Your task to perform on an android device: toggle translation in the chrome app Image 0: 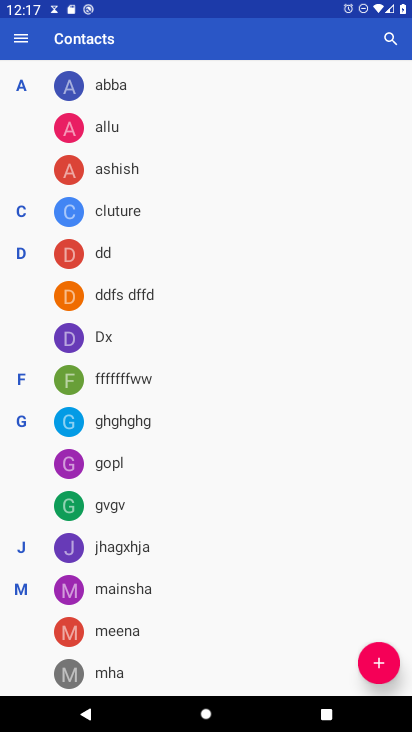
Step 0: press home button
Your task to perform on an android device: toggle translation in the chrome app Image 1: 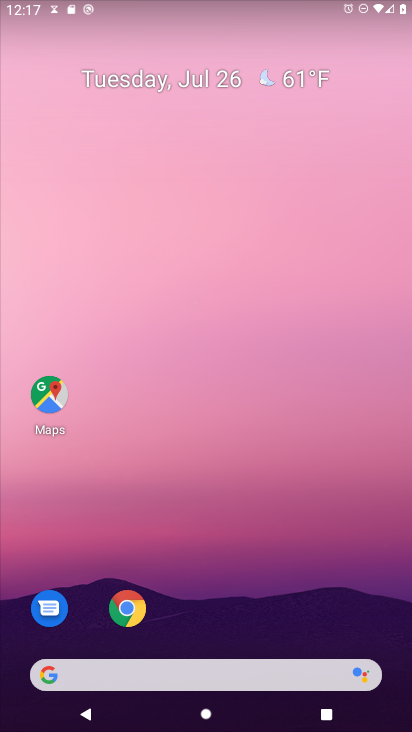
Step 1: click (127, 606)
Your task to perform on an android device: toggle translation in the chrome app Image 2: 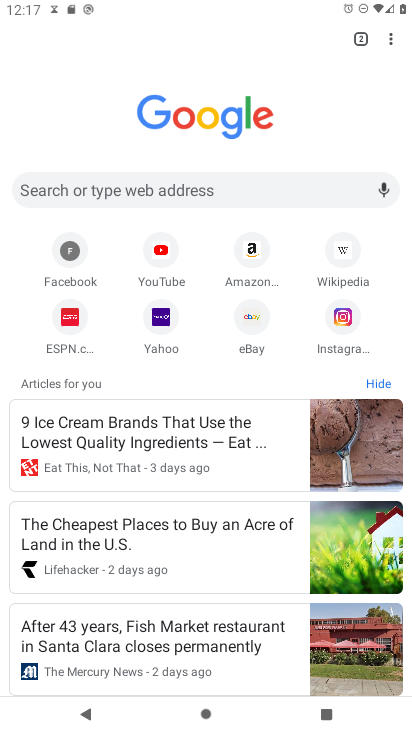
Step 2: click (390, 37)
Your task to perform on an android device: toggle translation in the chrome app Image 3: 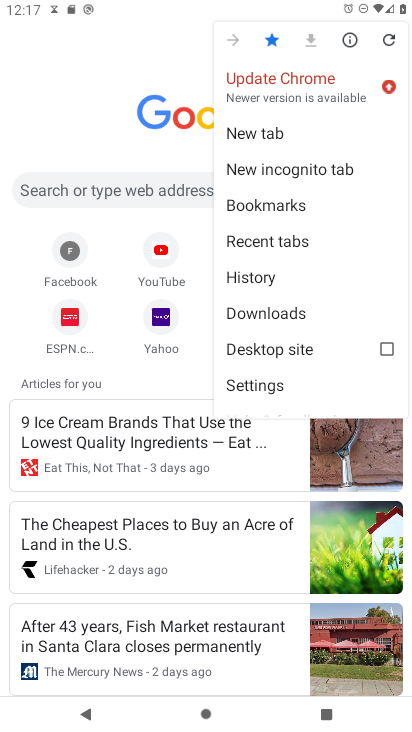
Step 3: click (259, 384)
Your task to perform on an android device: toggle translation in the chrome app Image 4: 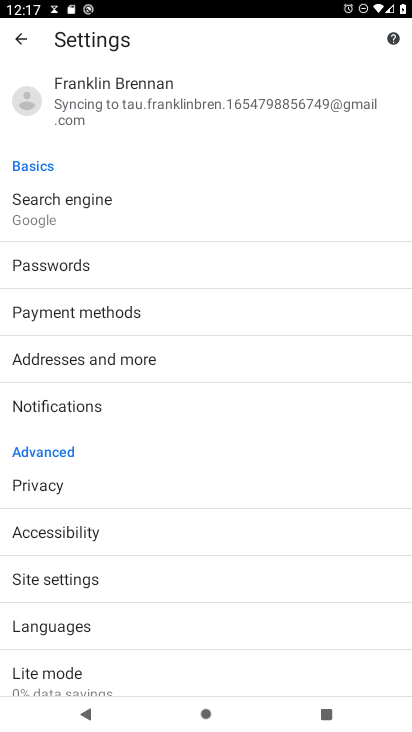
Step 4: click (60, 626)
Your task to perform on an android device: toggle translation in the chrome app Image 5: 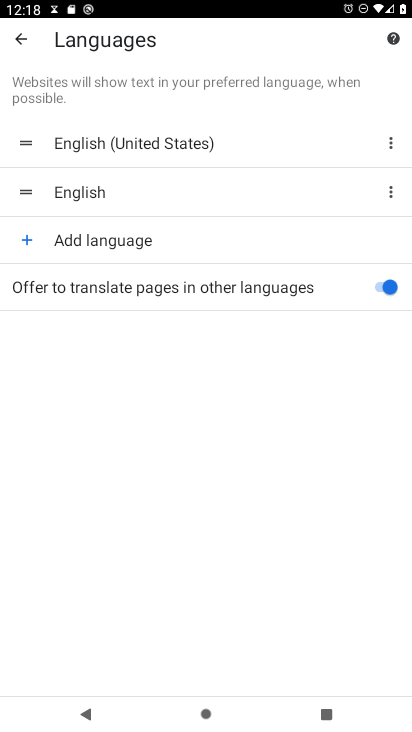
Step 5: click (383, 286)
Your task to perform on an android device: toggle translation in the chrome app Image 6: 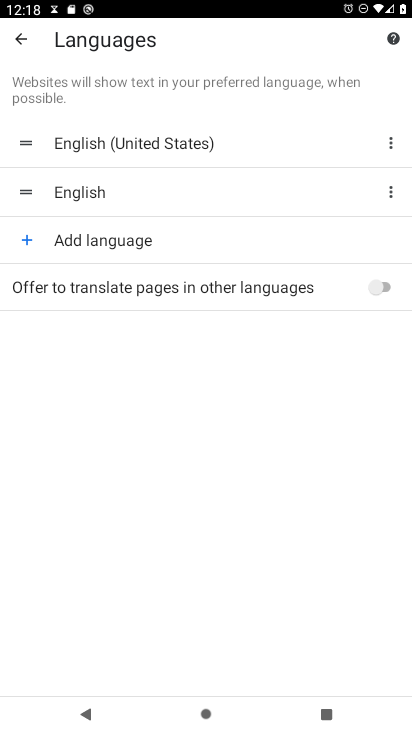
Step 6: task complete